Your task to perform on an android device: open app "Adobe Acrobat Reader: Edit PDF" (install if not already installed) and enter user name: "arthritis@inbox.com" and password: "scythes" Image 0: 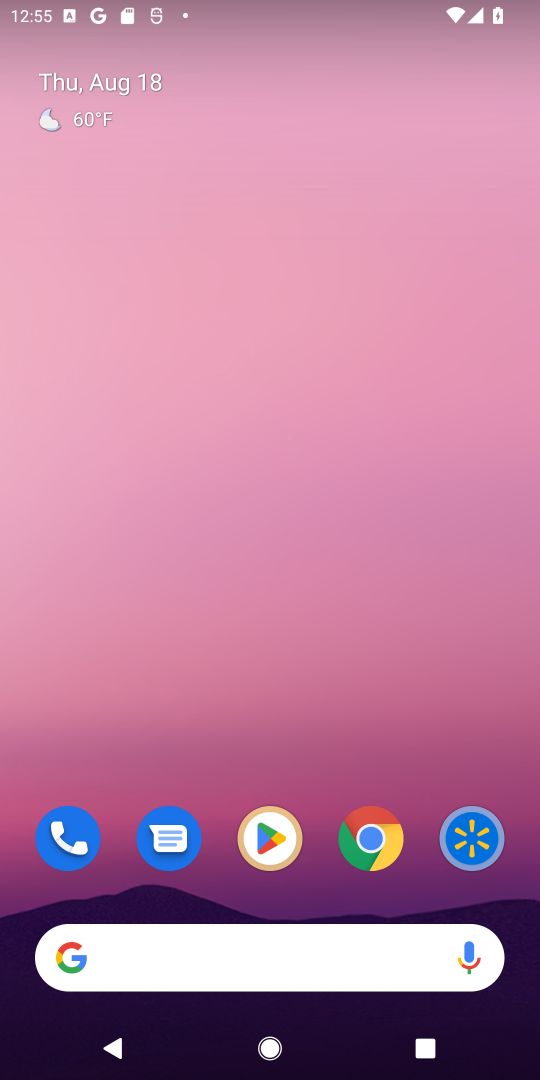
Step 0: click (264, 838)
Your task to perform on an android device: open app "Adobe Acrobat Reader: Edit PDF" (install if not already installed) and enter user name: "arthritis@inbox.com" and password: "scythes" Image 1: 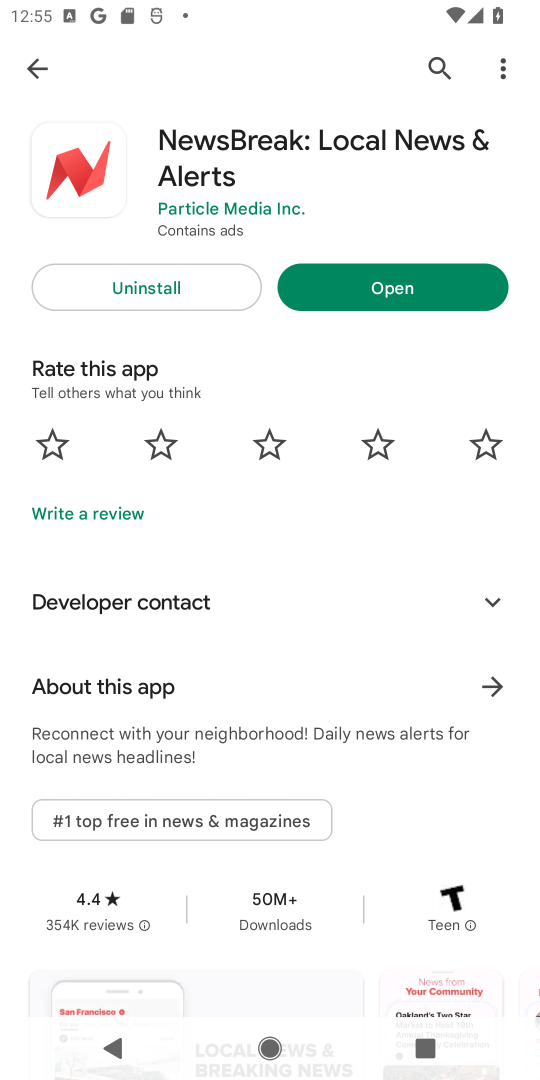
Step 1: click (426, 53)
Your task to perform on an android device: open app "Adobe Acrobat Reader: Edit PDF" (install if not already installed) and enter user name: "arthritis@inbox.com" and password: "scythes" Image 2: 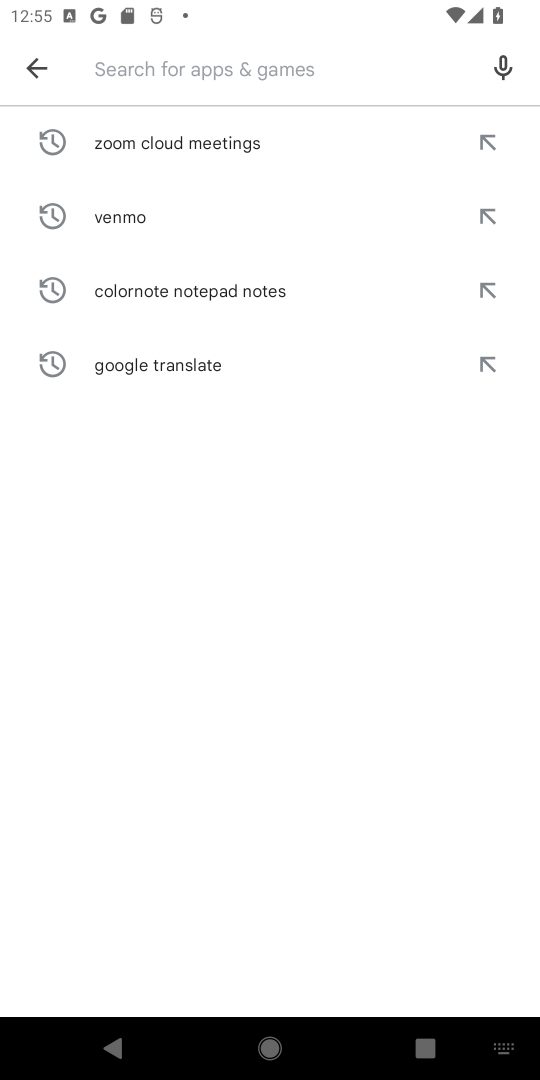
Step 2: type "Adobe Acrobat Reader: Edit PDF"
Your task to perform on an android device: open app "Adobe Acrobat Reader: Edit PDF" (install if not already installed) and enter user name: "arthritis@inbox.com" and password: "scythes" Image 3: 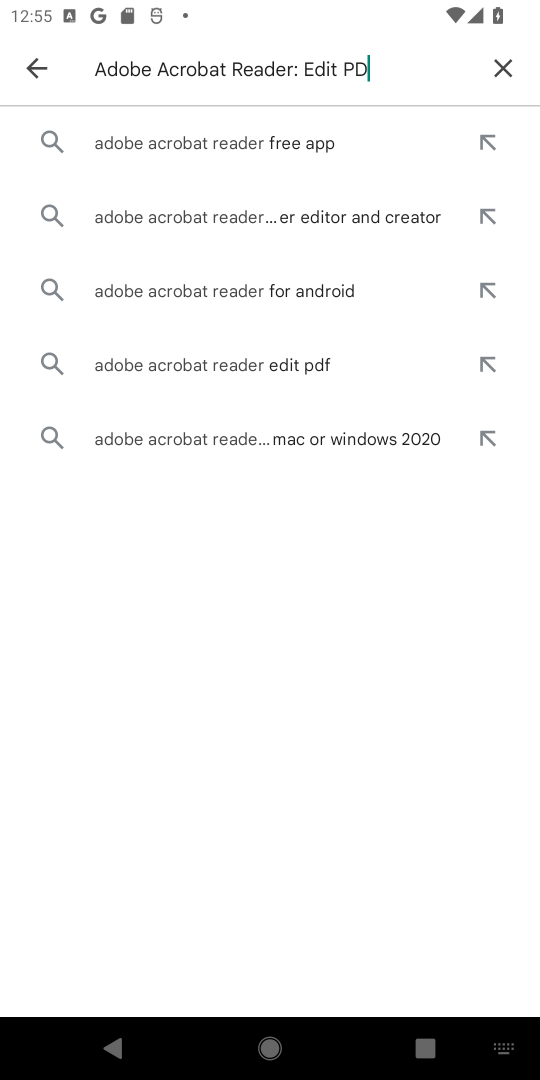
Step 3: type ""
Your task to perform on an android device: open app "Adobe Acrobat Reader: Edit PDF" (install if not already installed) and enter user name: "arthritis@inbox.com" and password: "scythes" Image 4: 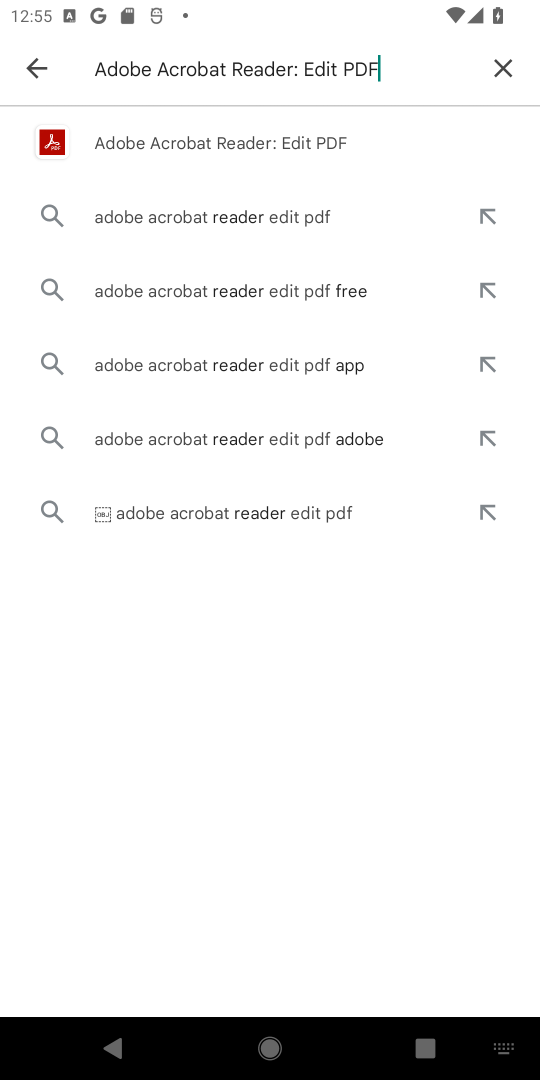
Step 4: click (296, 145)
Your task to perform on an android device: open app "Adobe Acrobat Reader: Edit PDF" (install if not already installed) and enter user name: "arthritis@inbox.com" and password: "scythes" Image 5: 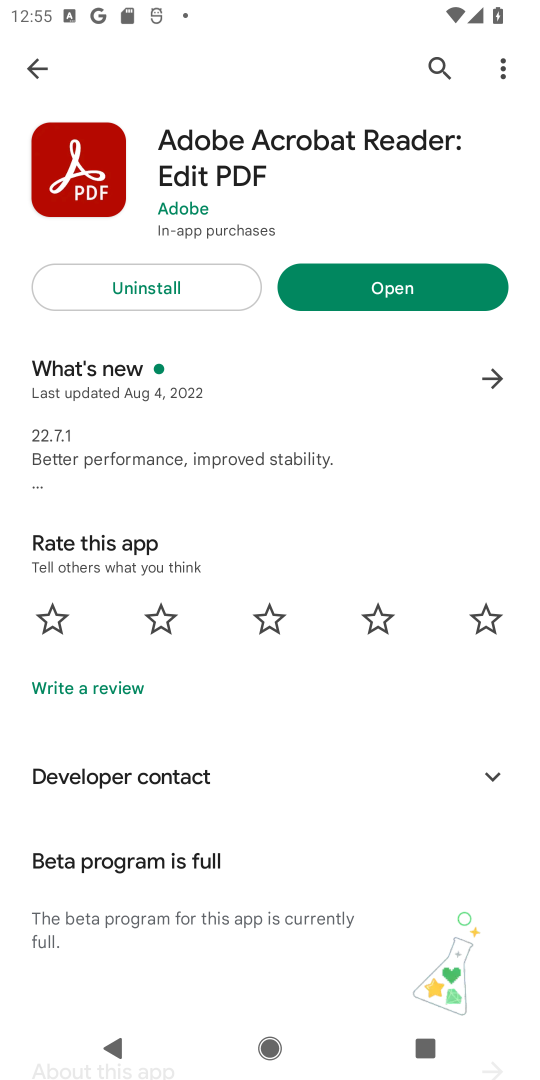
Step 5: click (375, 273)
Your task to perform on an android device: open app "Adobe Acrobat Reader: Edit PDF" (install if not already installed) and enter user name: "arthritis@inbox.com" and password: "scythes" Image 6: 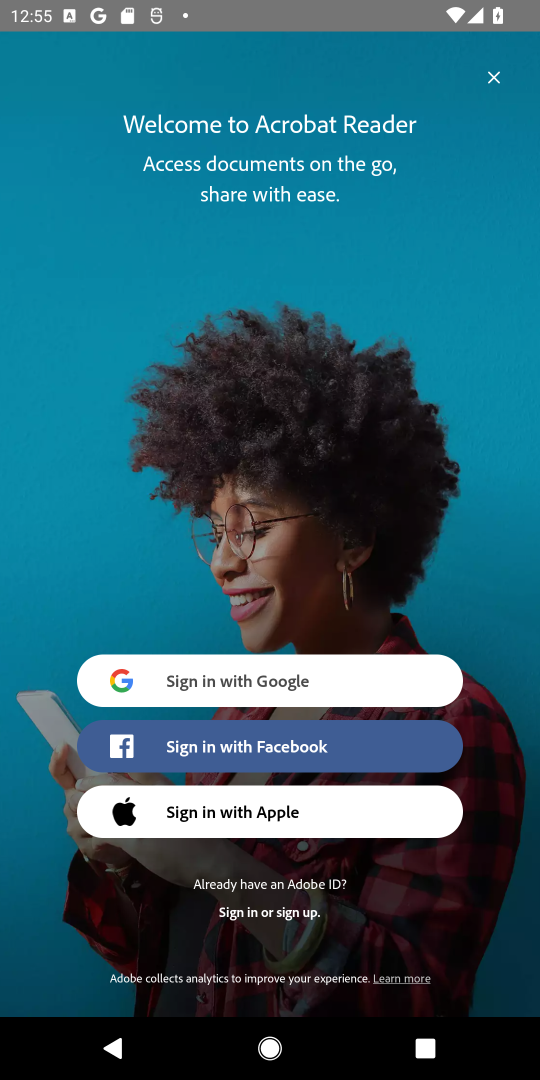
Step 6: task complete